Your task to perform on an android device: toggle location history Image 0: 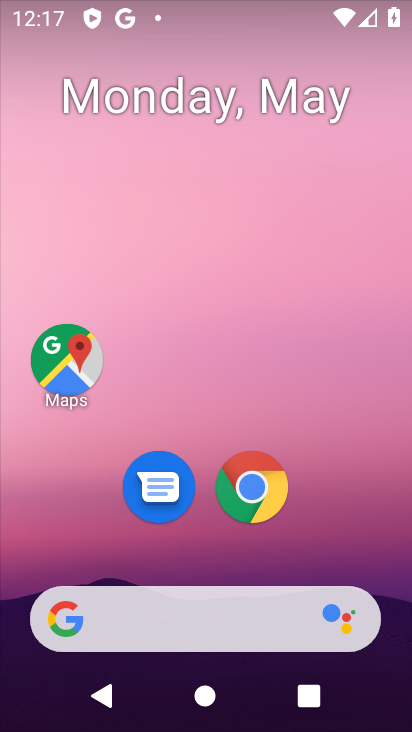
Step 0: drag from (349, 518) to (217, 68)
Your task to perform on an android device: toggle location history Image 1: 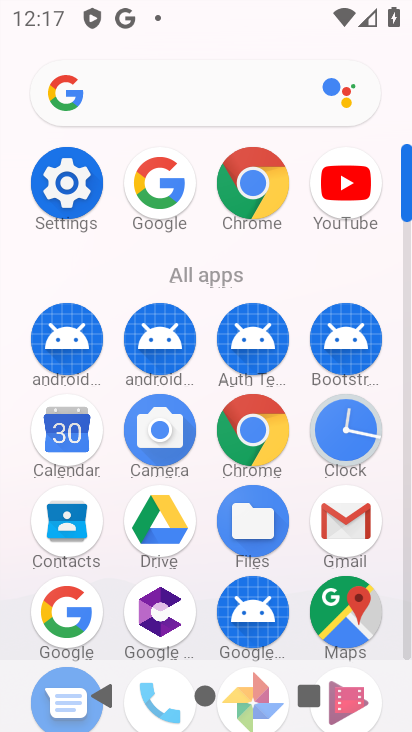
Step 1: drag from (300, 520) to (311, 373)
Your task to perform on an android device: toggle location history Image 2: 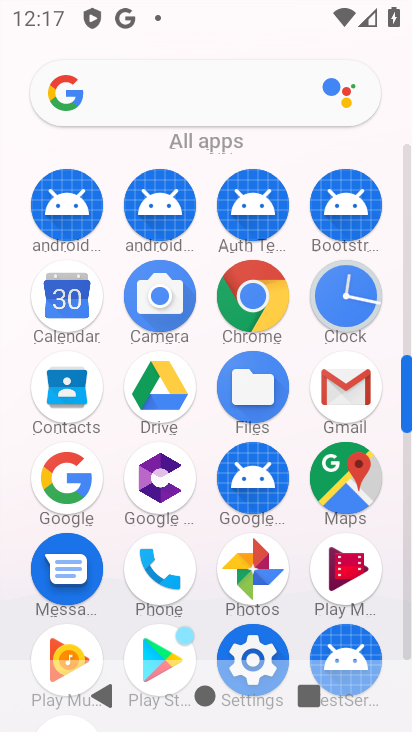
Step 2: drag from (304, 452) to (287, 307)
Your task to perform on an android device: toggle location history Image 3: 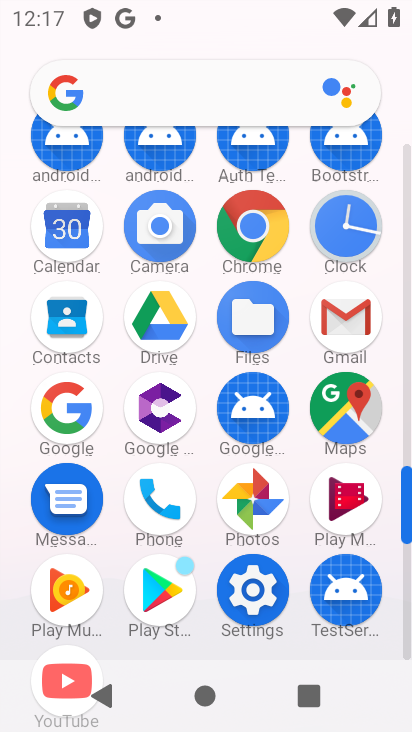
Step 3: click (250, 589)
Your task to perform on an android device: toggle location history Image 4: 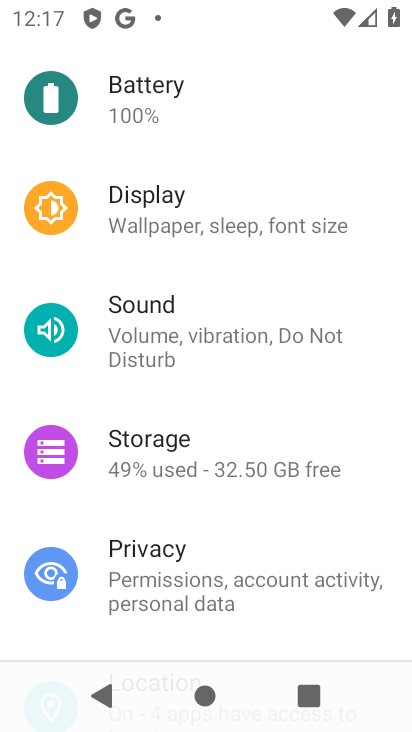
Step 4: drag from (196, 499) to (238, 391)
Your task to perform on an android device: toggle location history Image 5: 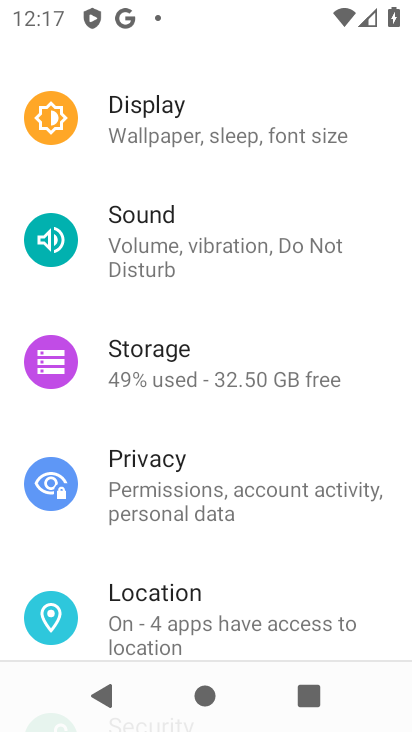
Step 5: drag from (169, 595) to (204, 494)
Your task to perform on an android device: toggle location history Image 6: 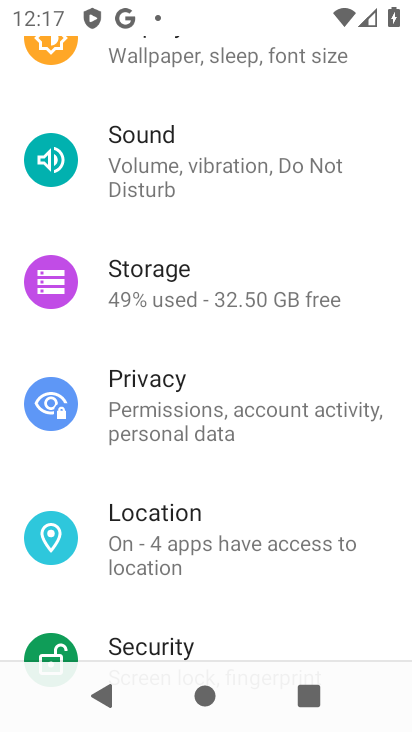
Step 6: click (162, 518)
Your task to perform on an android device: toggle location history Image 7: 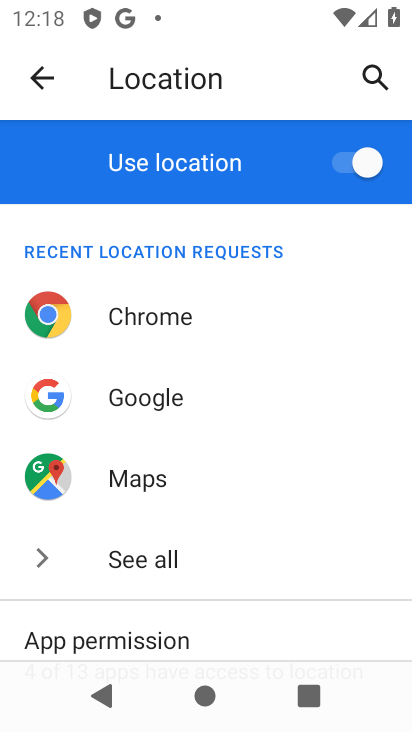
Step 7: drag from (198, 614) to (197, 283)
Your task to perform on an android device: toggle location history Image 8: 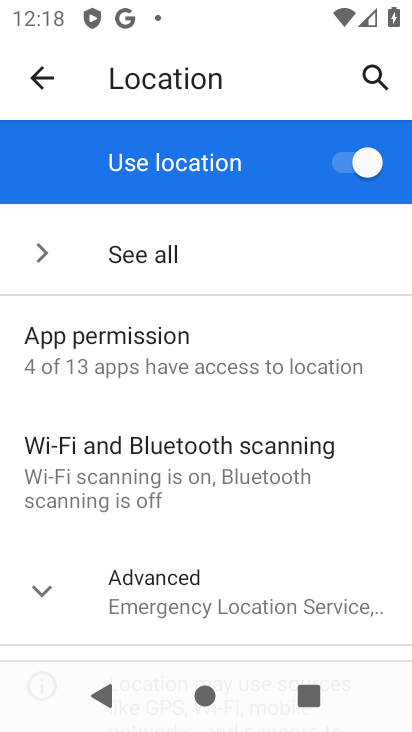
Step 8: click (210, 602)
Your task to perform on an android device: toggle location history Image 9: 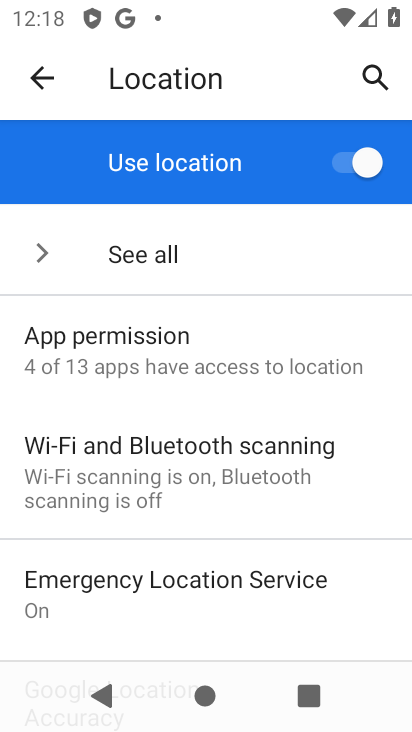
Step 9: drag from (159, 594) to (250, 426)
Your task to perform on an android device: toggle location history Image 10: 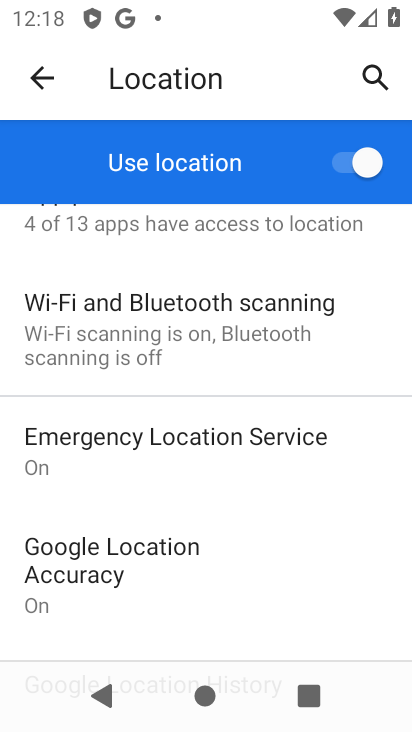
Step 10: drag from (169, 586) to (239, 461)
Your task to perform on an android device: toggle location history Image 11: 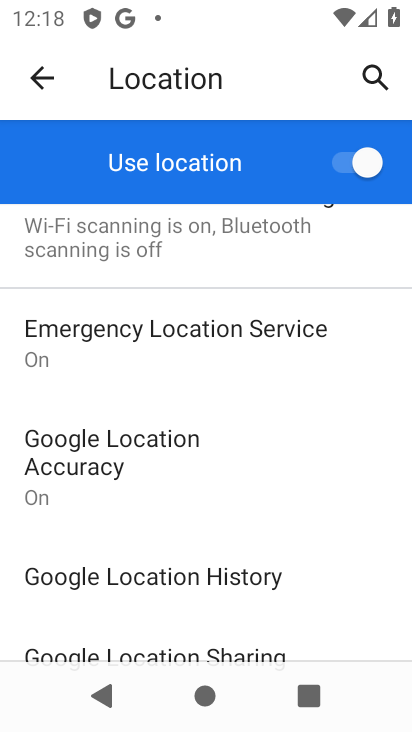
Step 11: drag from (160, 601) to (238, 505)
Your task to perform on an android device: toggle location history Image 12: 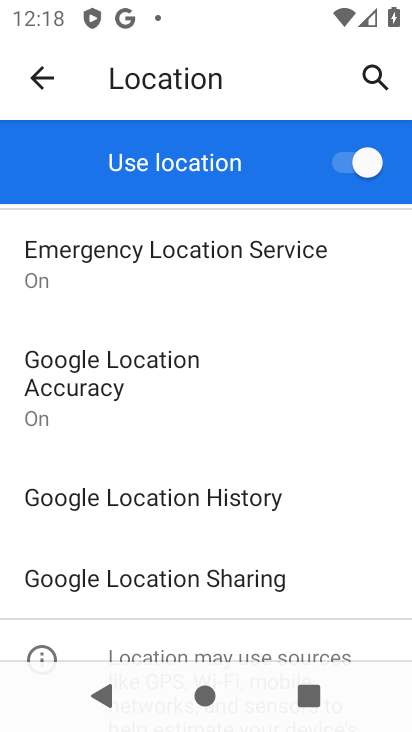
Step 12: click (166, 501)
Your task to perform on an android device: toggle location history Image 13: 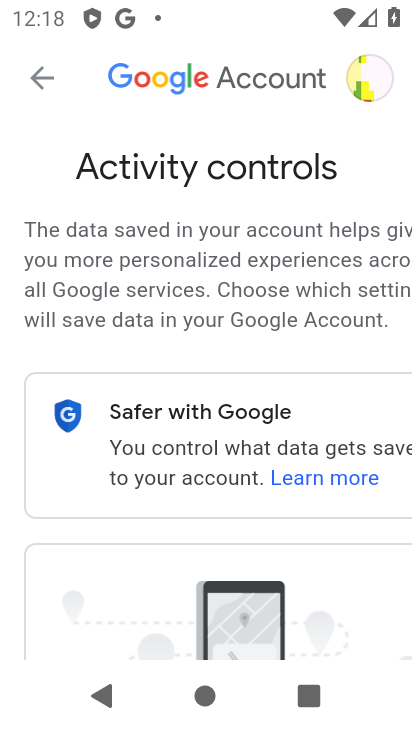
Step 13: drag from (132, 591) to (256, 365)
Your task to perform on an android device: toggle location history Image 14: 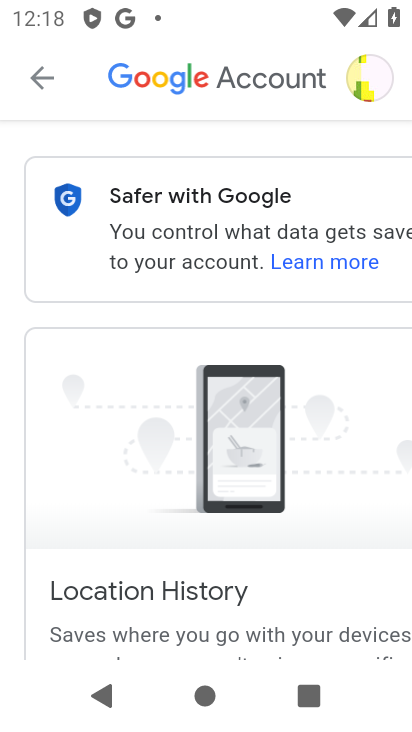
Step 14: drag from (206, 597) to (251, 453)
Your task to perform on an android device: toggle location history Image 15: 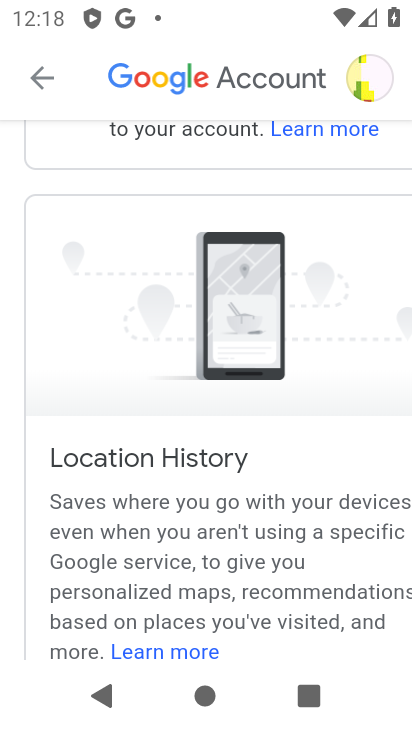
Step 15: drag from (228, 574) to (325, 385)
Your task to perform on an android device: toggle location history Image 16: 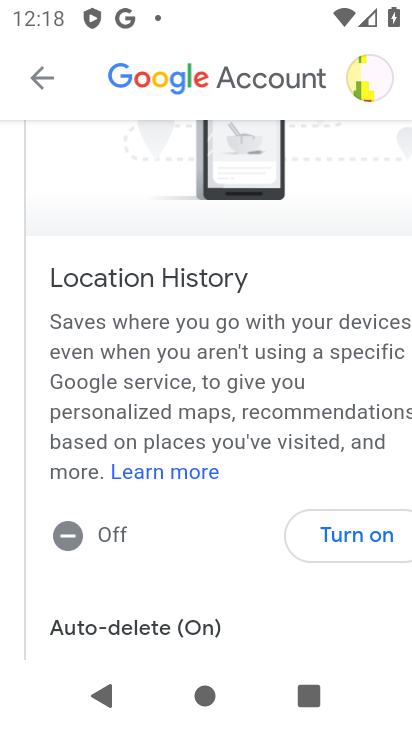
Step 16: click (335, 539)
Your task to perform on an android device: toggle location history Image 17: 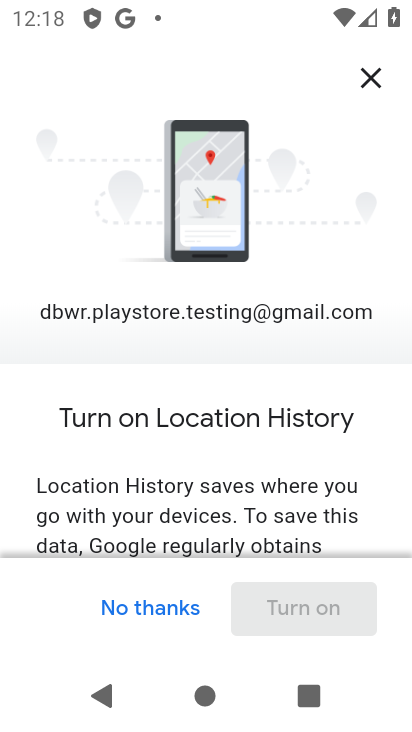
Step 17: drag from (245, 451) to (302, 312)
Your task to perform on an android device: toggle location history Image 18: 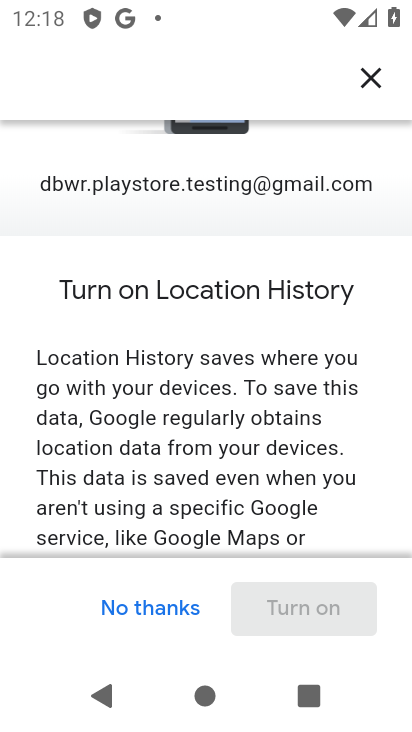
Step 18: drag from (224, 439) to (273, 319)
Your task to perform on an android device: toggle location history Image 19: 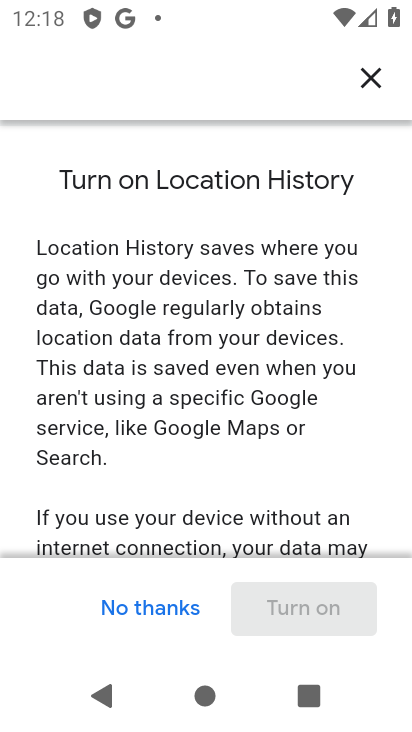
Step 19: drag from (225, 447) to (283, 337)
Your task to perform on an android device: toggle location history Image 20: 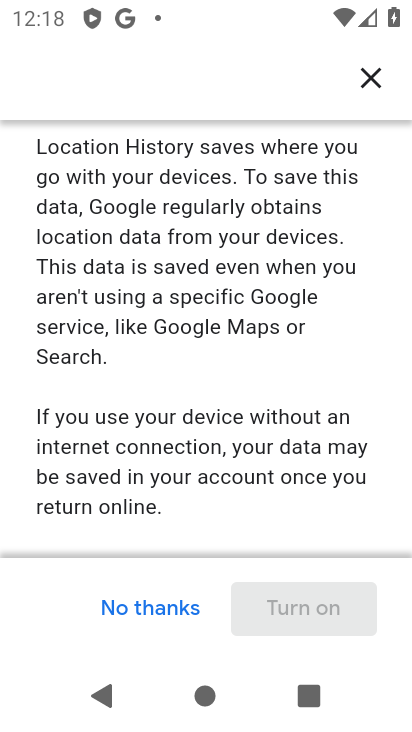
Step 20: drag from (207, 503) to (275, 402)
Your task to perform on an android device: toggle location history Image 21: 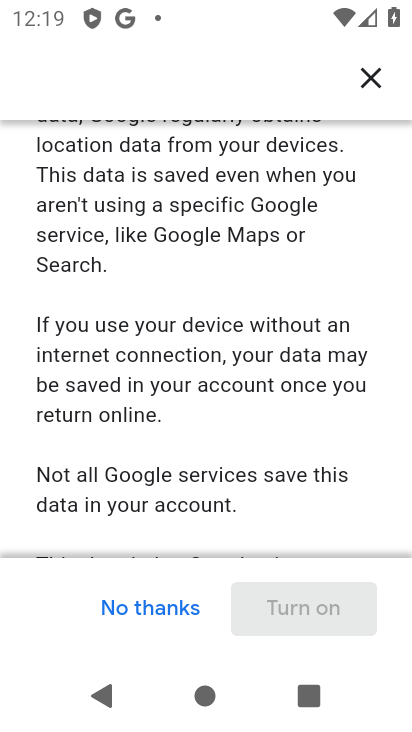
Step 21: drag from (263, 499) to (316, 375)
Your task to perform on an android device: toggle location history Image 22: 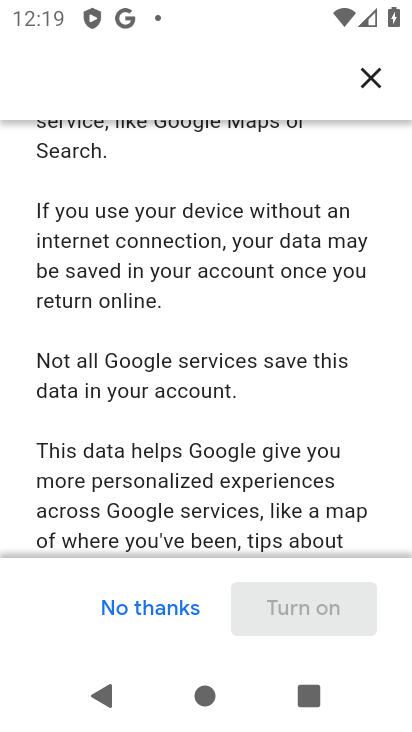
Step 22: drag from (240, 492) to (297, 380)
Your task to perform on an android device: toggle location history Image 23: 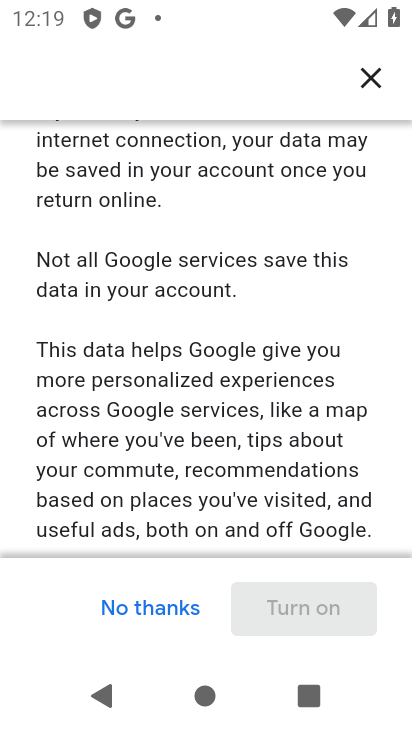
Step 23: drag from (169, 449) to (228, 303)
Your task to perform on an android device: toggle location history Image 24: 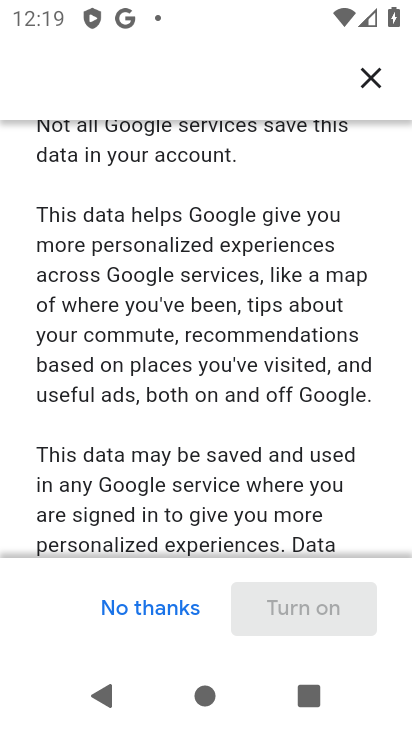
Step 24: drag from (196, 456) to (265, 307)
Your task to perform on an android device: toggle location history Image 25: 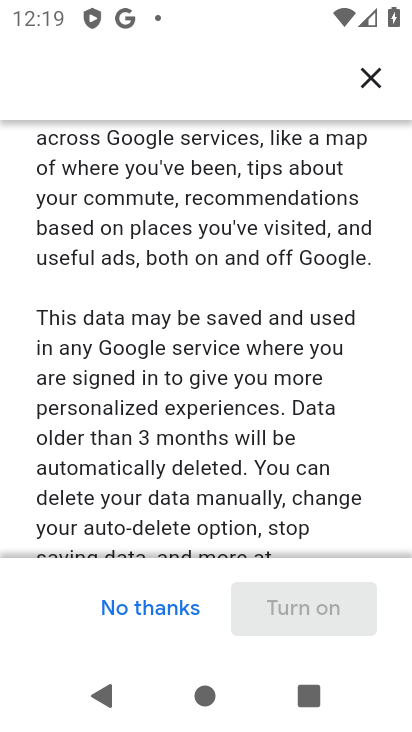
Step 25: drag from (181, 437) to (255, 313)
Your task to perform on an android device: toggle location history Image 26: 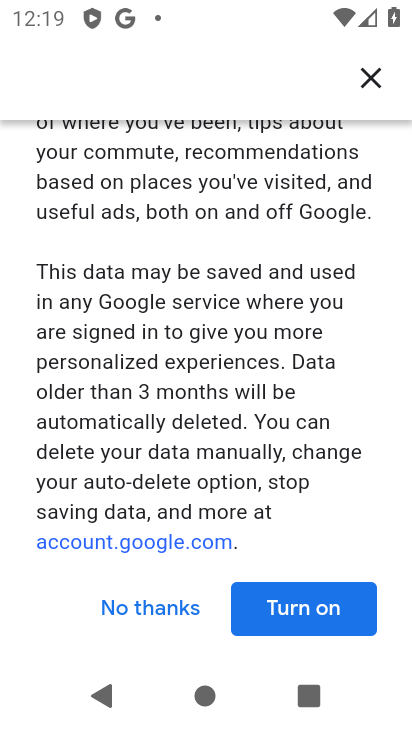
Step 26: click (294, 606)
Your task to perform on an android device: toggle location history Image 27: 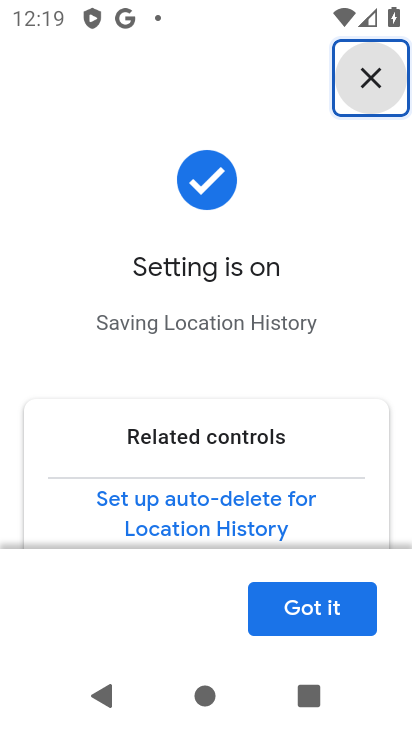
Step 27: click (294, 606)
Your task to perform on an android device: toggle location history Image 28: 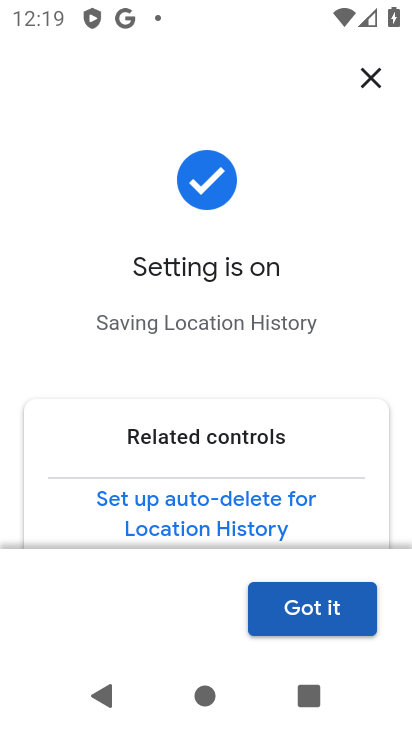
Step 28: click (337, 605)
Your task to perform on an android device: toggle location history Image 29: 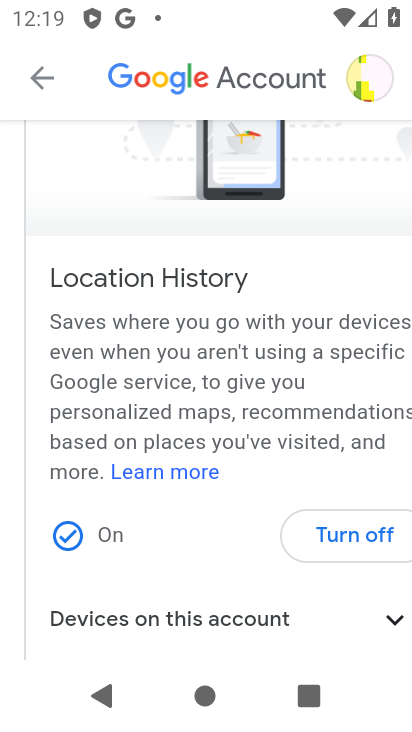
Step 29: task complete